Your task to perform on an android device: Search for seafood restaurants on Google Maps Image 0: 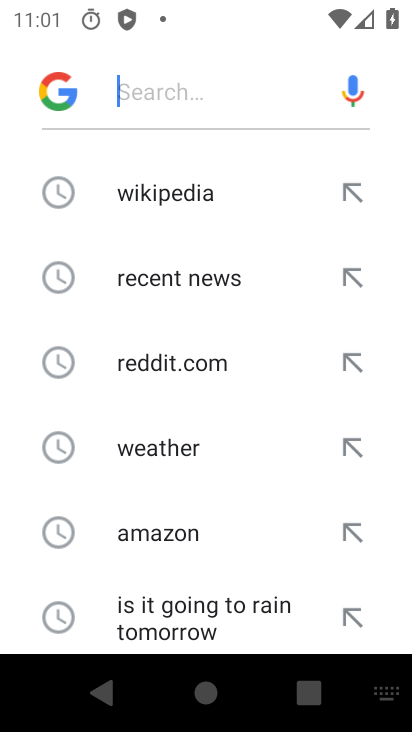
Step 0: press home button
Your task to perform on an android device: Search for seafood restaurants on Google Maps Image 1: 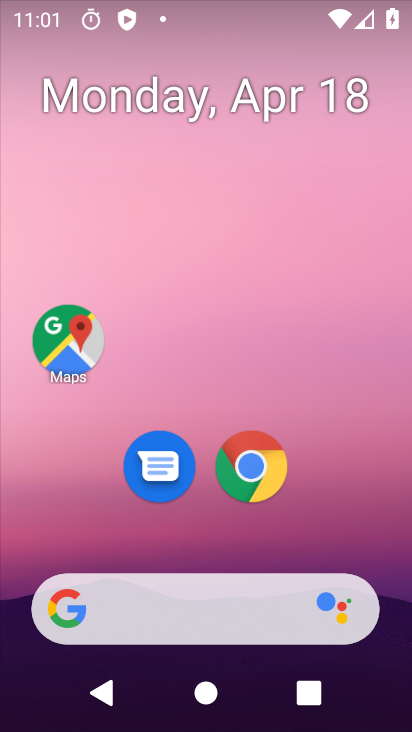
Step 1: drag from (258, 612) to (196, 190)
Your task to perform on an android device: Search for seafood restaurants on Google Maps Image 2: 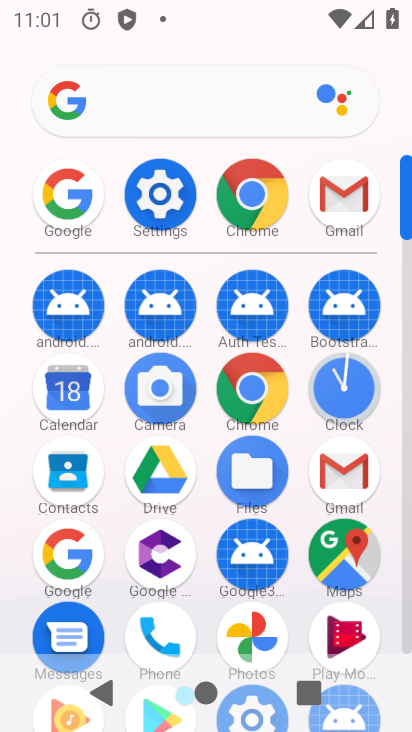
Step 2: click (357, 558)
Your task to perform on an android device: Search for seafood restaurants on Google Maps Image 3: 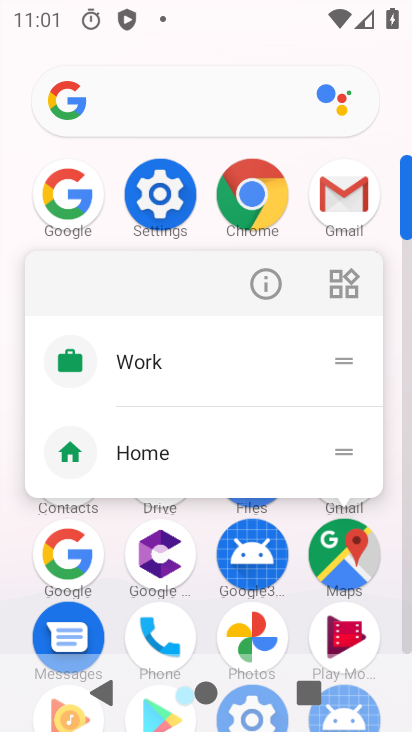
Step 3: click (343, 583)
Your task to perform on an android device: Search for seafood restaurants on Google Maps Image 4: 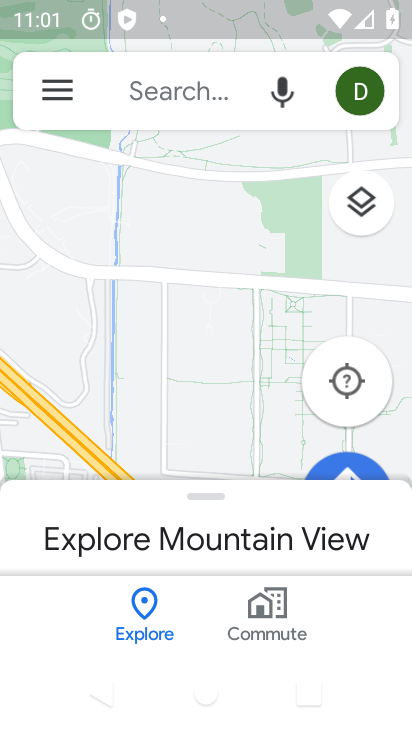
Step 4: click (204, 116)
Your task to perform on an android device: Search for seafood restaurants on Google Maps Image 5: 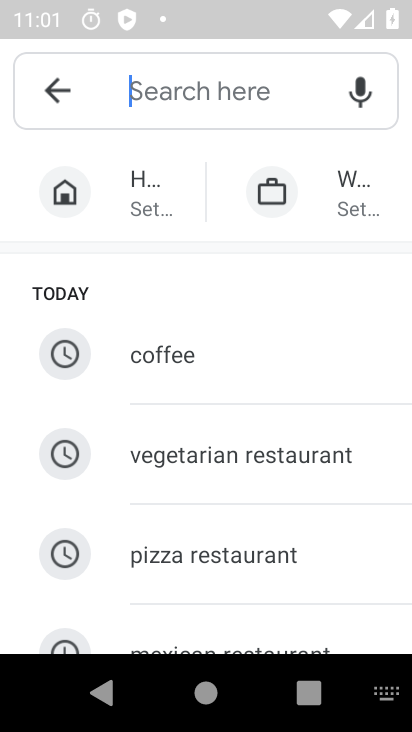
Step 5: drag from (253, 573) to (334, 226)
Your task to perform on an android device: Search for seafood restaurants on Google Maps Image 6: 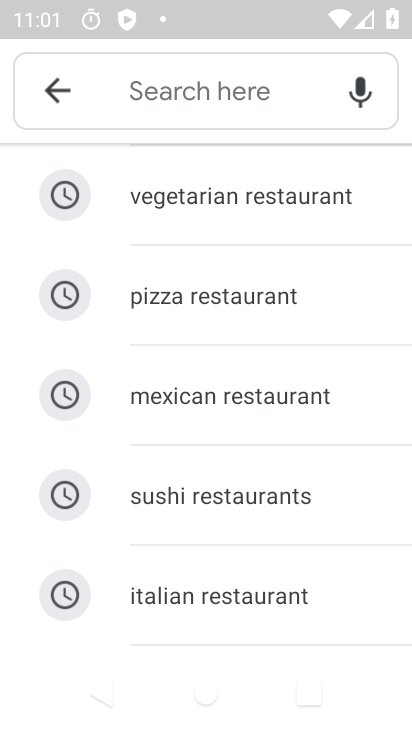
Step 6: drag from (254, 453) to (266, 161)
Your task to perform on an android device: Search for seafood restaurants on Google Maps Image 7: 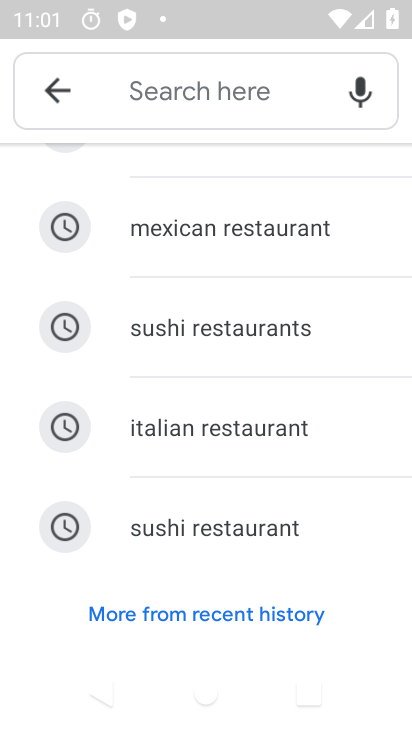
Step 7: click (203, 97)
Your task to perform on an android device: Search for seafood restaurants on Google Maps Image 8: 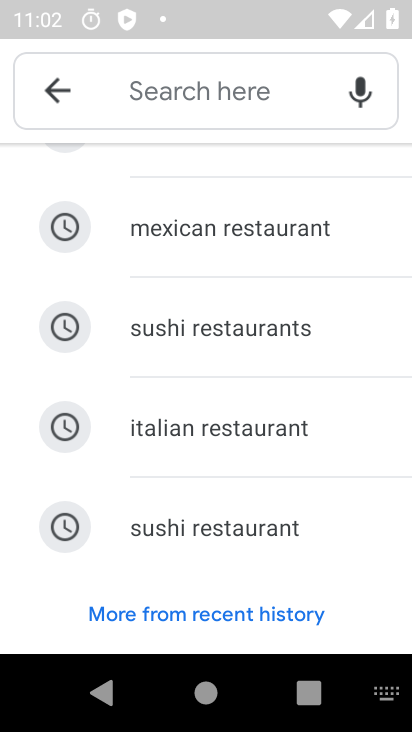
Step 8: type "seafood restaurants"
Your task to perform on an android device: Search for seafood restaurants on Google Maps Image 9: 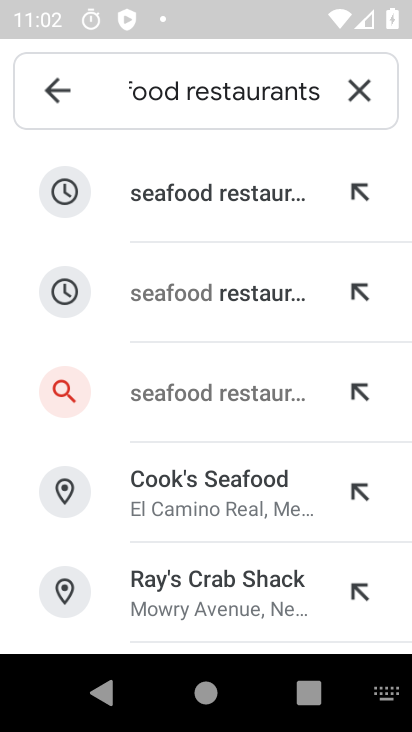
Step 9: click (236, 204)
Your task to perform on an android device: Search for seafood restaurants on Google Maps Image 10: 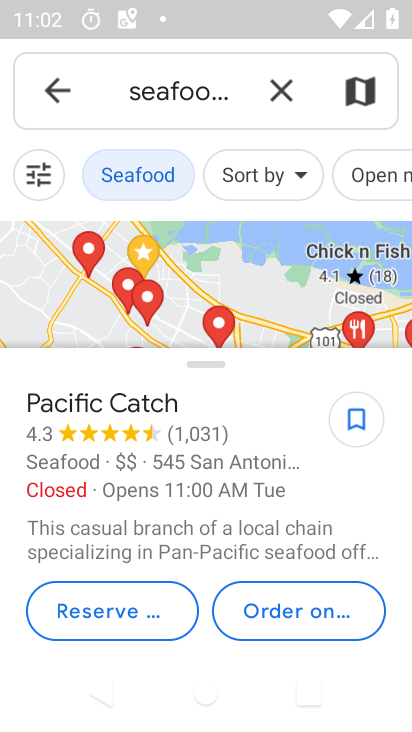
Step 10: task complete